Your task to perform on an android device: Show me the alarms in the clock app Image 0: 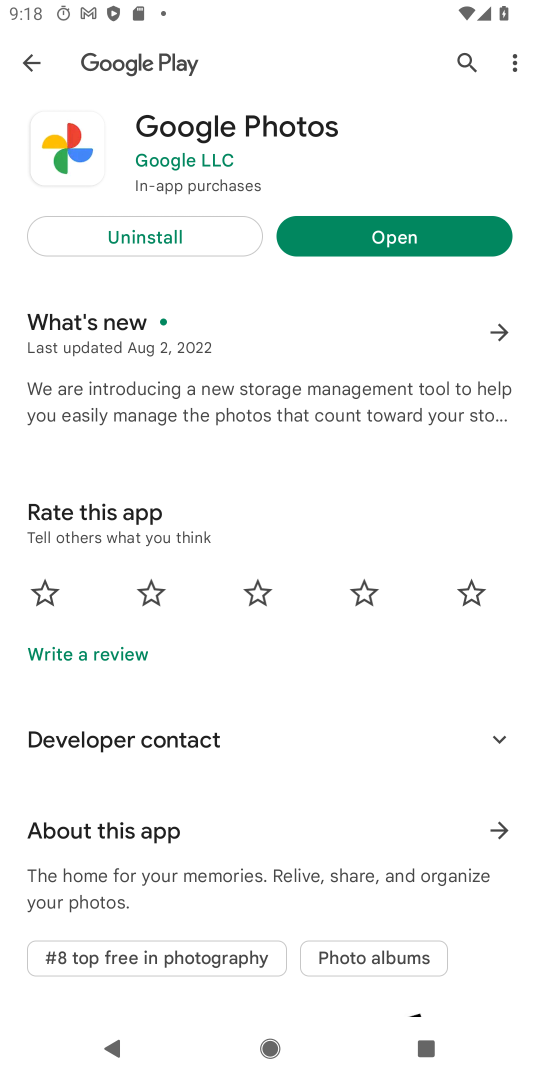
Step 0: press home button
Your task to perform on an android device: Show me the alarms in the clock app Image 1: 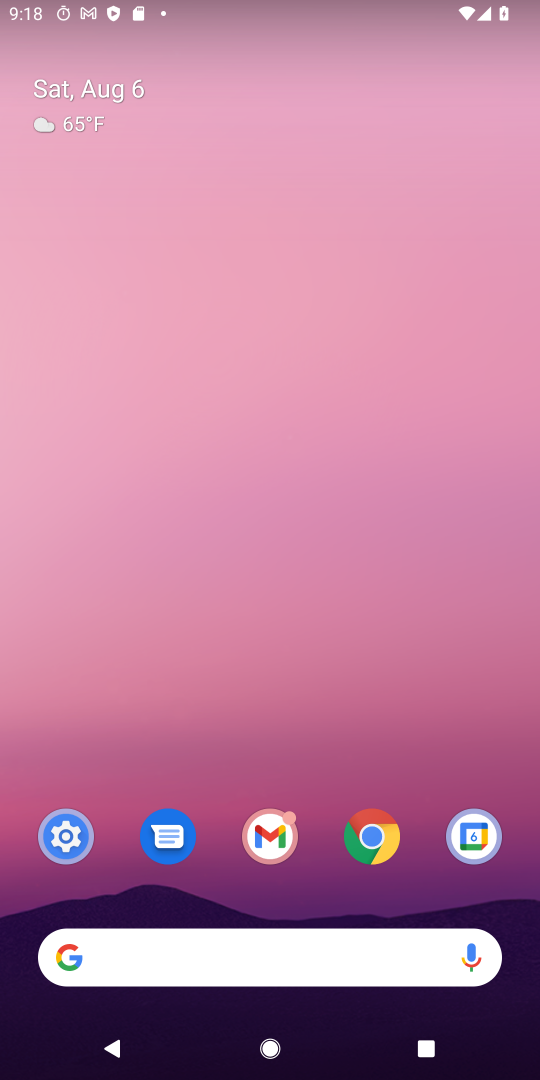
Step 1: drag from (510, 917) to (246, 77)
Your task to perform on an android device: Show me the alarms in the clock app Image 2: 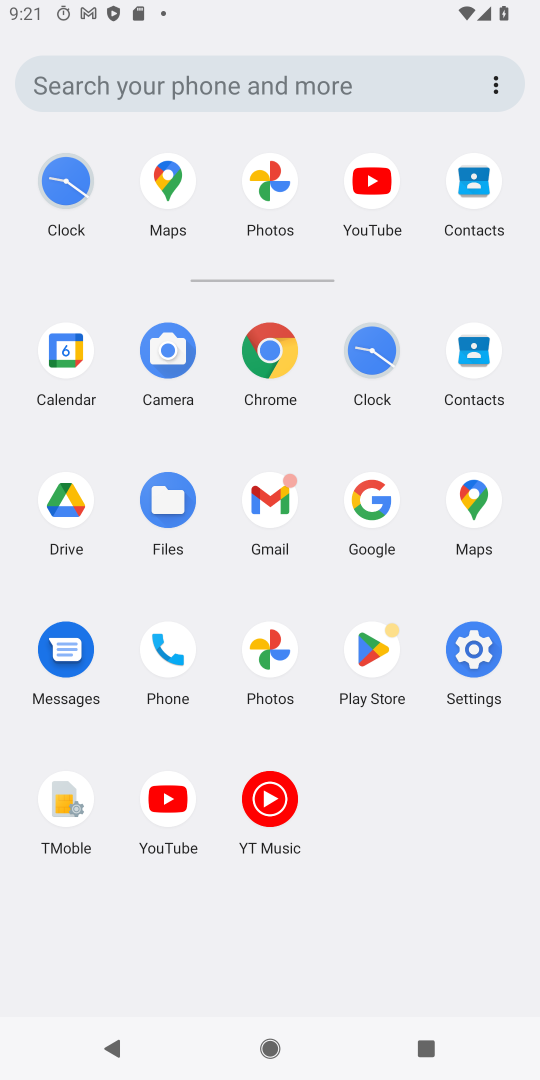
Step 2: click (379, 354)
Your task to perform on an android device: Show me the alarms in the clock app Image 3: 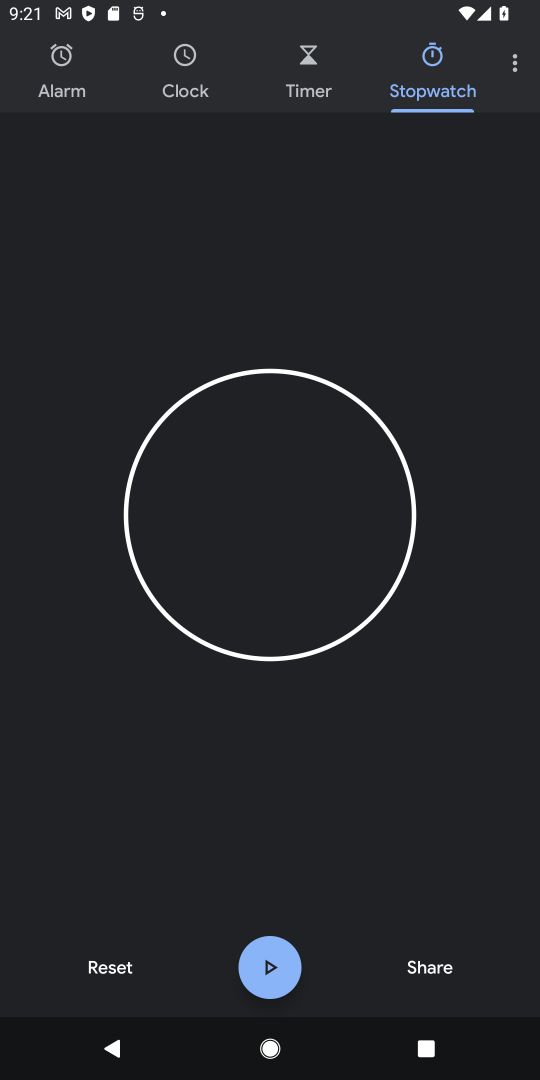
Step 3: click (72, 71)
Your task to perform on an android device: Show me the alarms in the clock app Image 4: 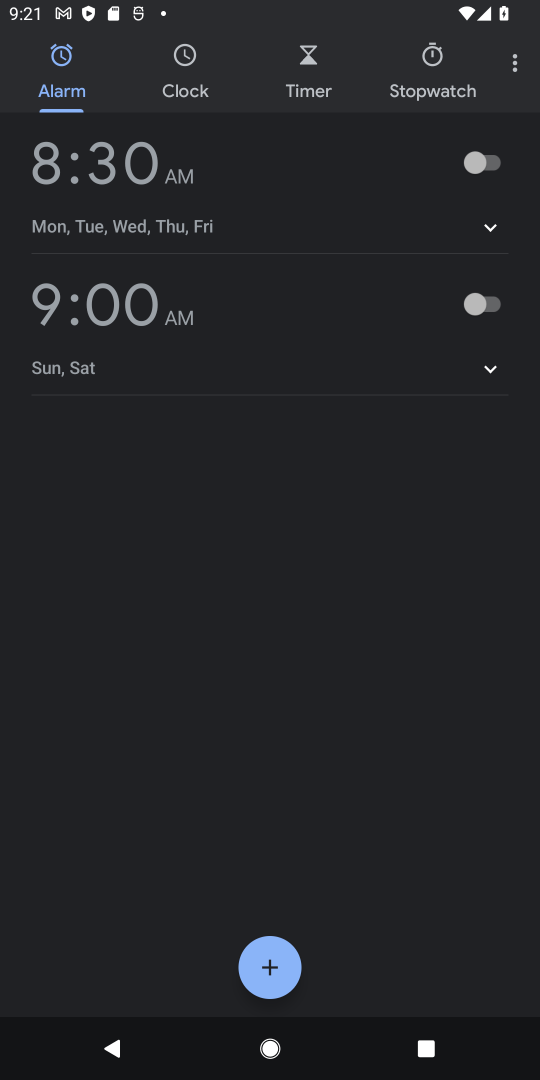
Step 4: click (517, 169)
Your task to perform on an android device: Show me the alarms in the clock app Image 5: 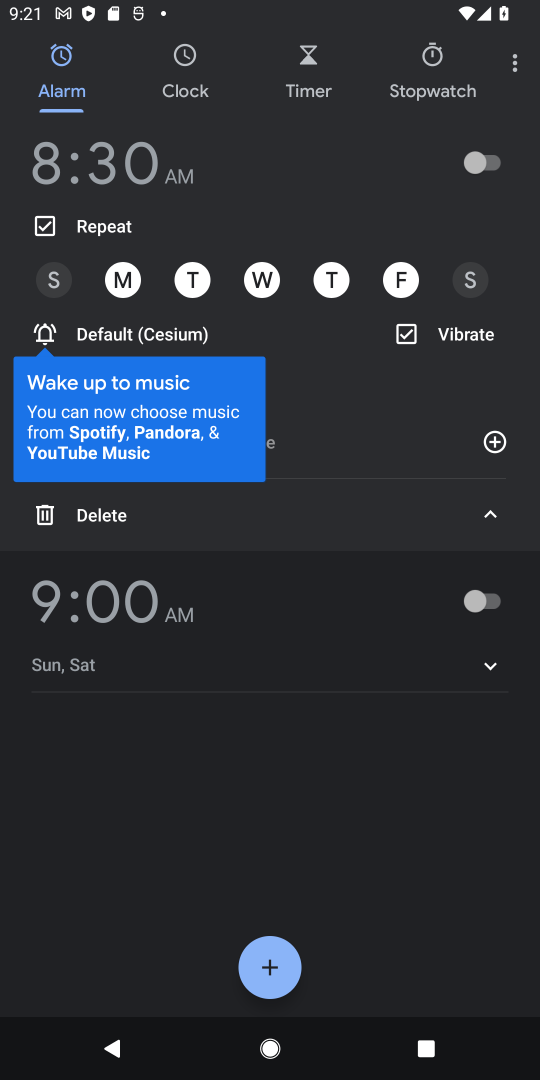
Step 5: click (490, 160)
Your task to perform on an android device: Show me the alarms in the clock app Image 6: 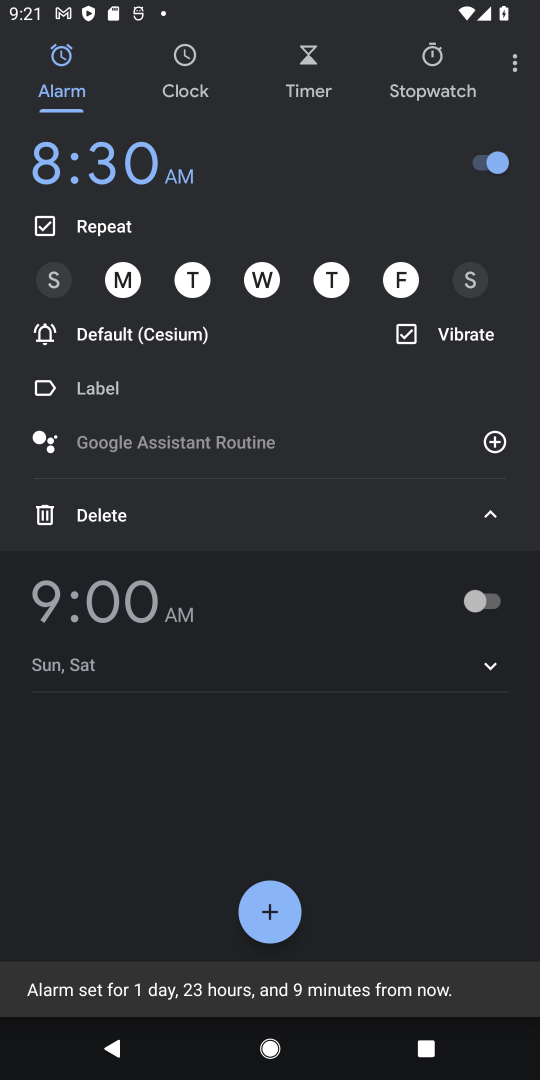
Step 6: task complete